Your task to perform on an android device: Show me productivity apps on the Play Store Image 0: 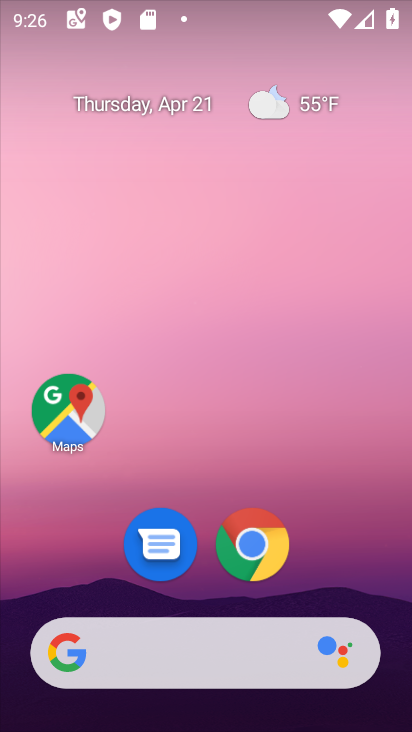
Step 0: drag from (362, 497) to (258, 24)
Your task to perform on an android device: Show me productivity apps on the Play Store Image 1: 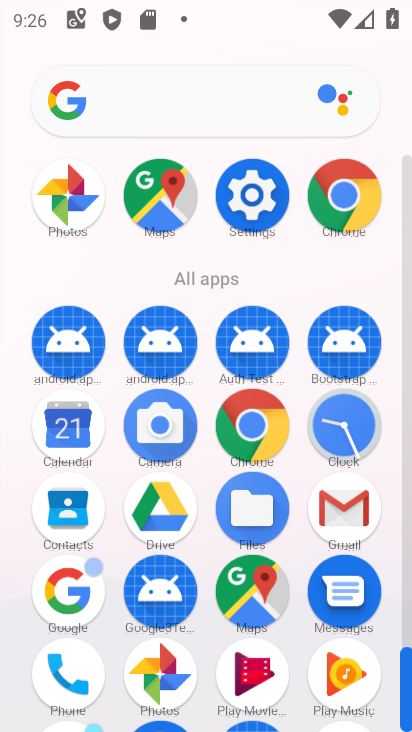
Step 1: drag from (15, 599) to (10, 291)
Your task to perform on an android device: Show me productivity apps on the Play Store Image 2: 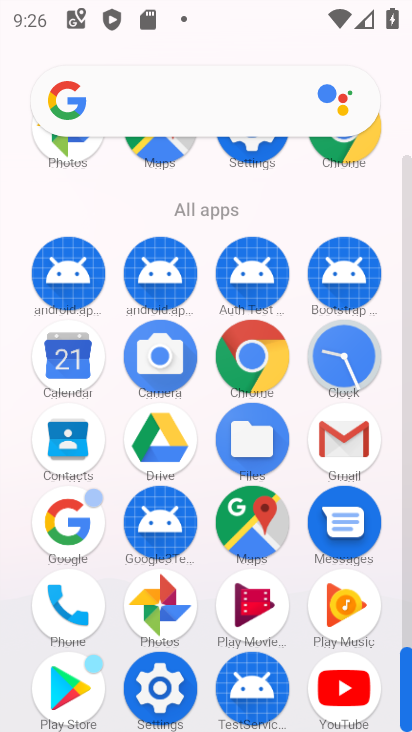
Step 2: click (62, 677)
Your task to perform on an android device: Show me productivity apps on the Play Store Image 3: 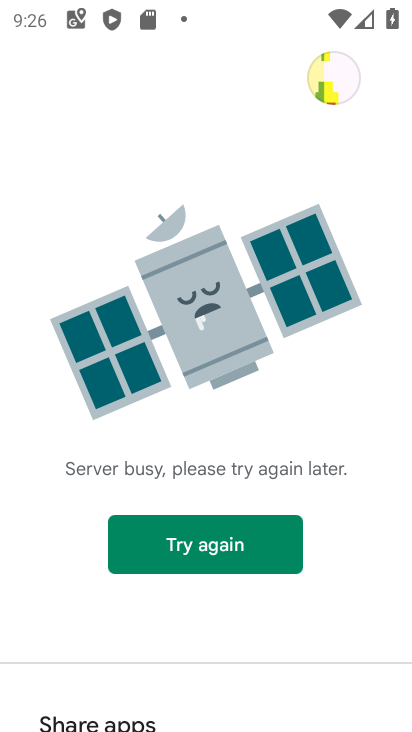
Step 3: click (225, 534)
Your task to perform on an android device: Show me productivity apps on the Play Store Image 4: 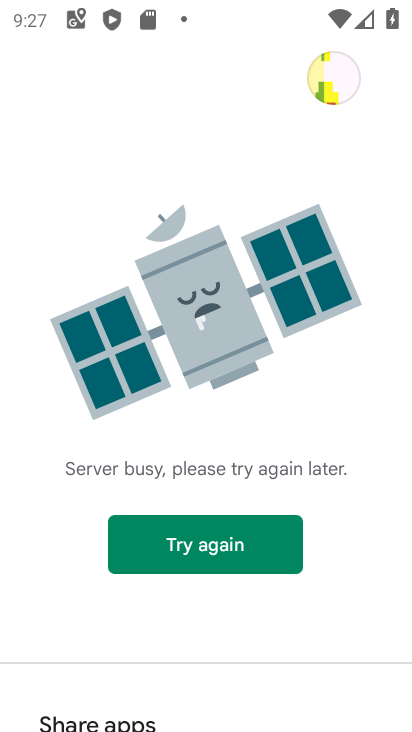
Step 4: task complete